Your task to perform on an android device: Turn off the flashlight Image 0: 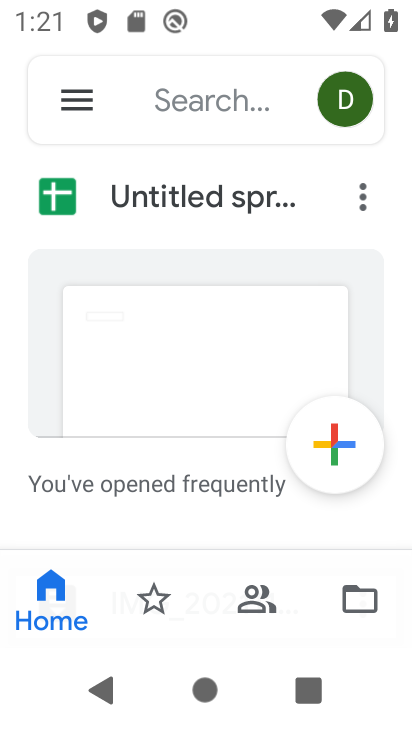
Step 0: press home button
Your task to perform on an android device: Turn off the flashlight Image 1: 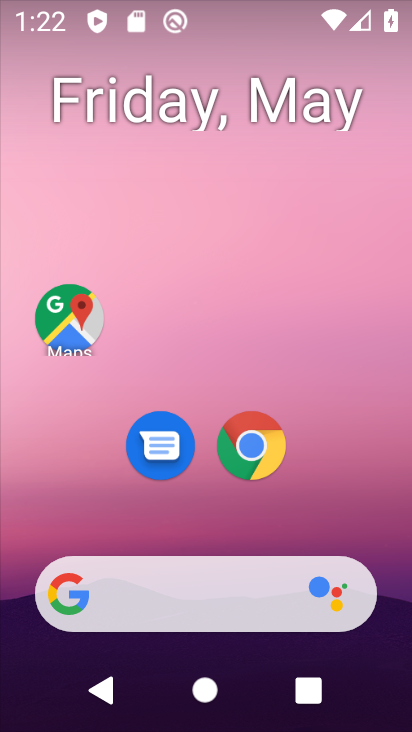
Step 1: drag from (238, 13) to (273, 485)
Your task to perform on an android device: Turn off the flashlight Image 2: 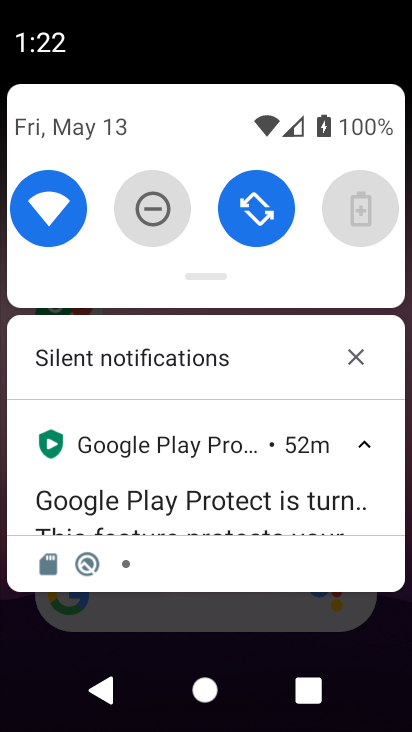
Step 2: drag from (203, 280) to (212, 521)
Your task to perform on an android device: Turn off the flashlight Image 3: 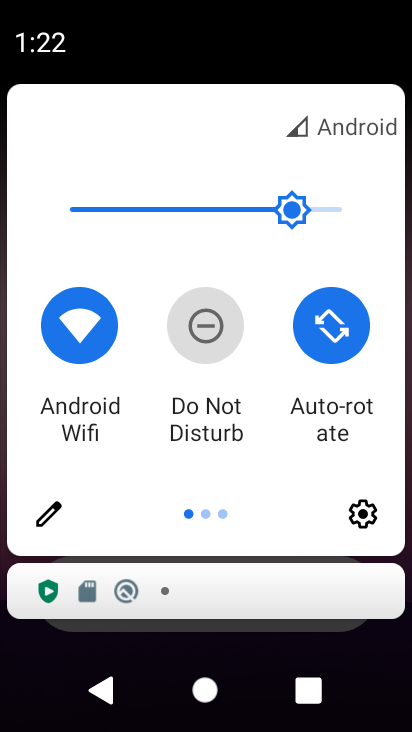
Step 3: click (46, 508)
Your task to perform on an android device: Turn off the flashlight Image 4: 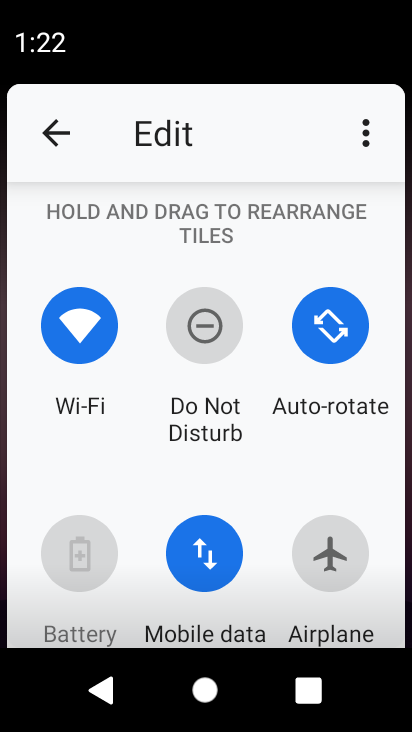
Step 4: task complete